Your task to perform on an android device: What's the weather today? Image 0: 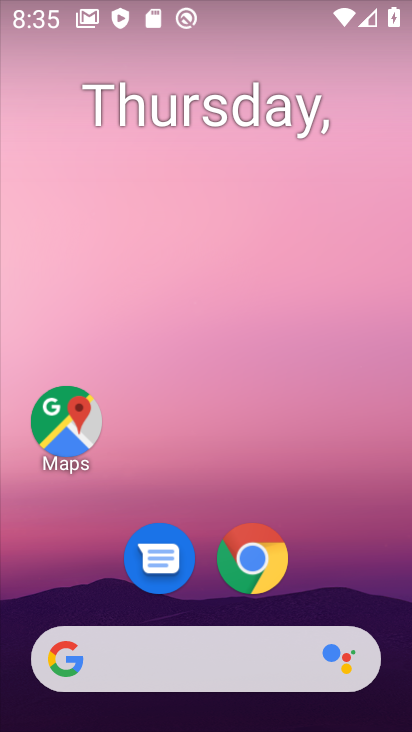
Step 0: drag from (5, 145) to (396, 187)
Your task to perform on an android device: What's the weather today? Image 1: 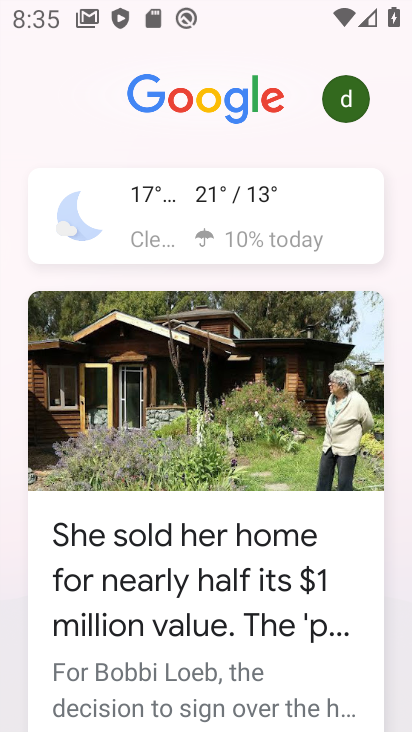
Step 1: click (266, 225)
Your task to perform on an android device: What's the weather today? Image 2: 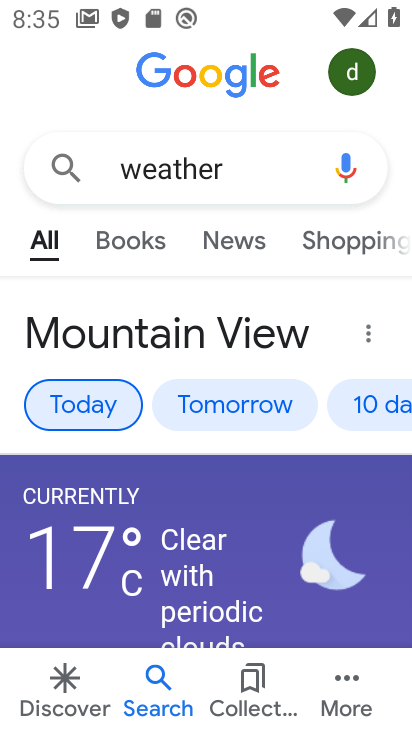
Step 2: drag from (245, 557) to (227, 188)
Your task to perform on an android device: What's the weather today? Image 3: 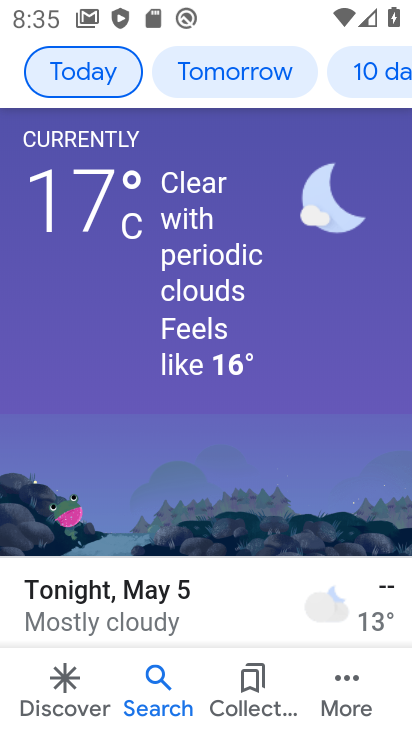
Step 3: drag from (226, 543) to (248, 184)
Your task to perform on an android device: What's the weather today? Image 4: 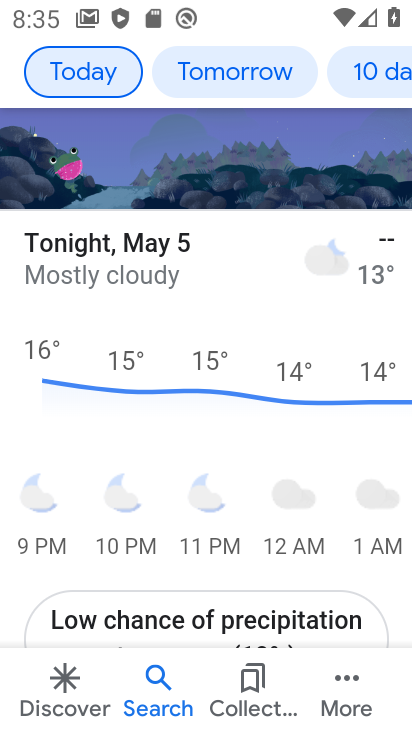
Step 4: drag from (333, 405) to (36, 368)
Your task to perform on an android device: What's the weather today? Image 5: 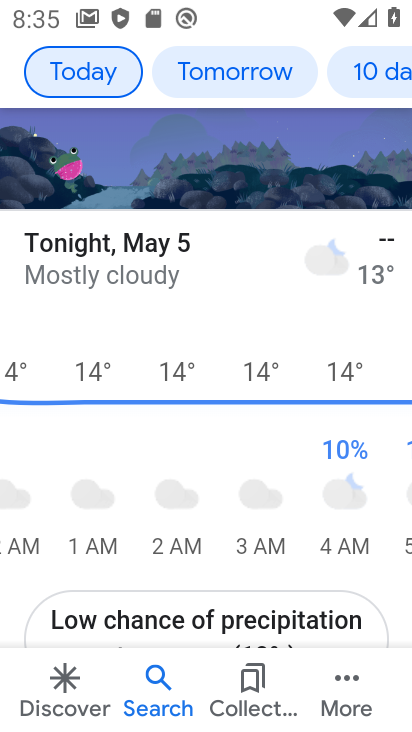
Step 5: drag from (287, 392) to (8, 362)
Your task to perform on an android device: What's the weather today? Image 6: 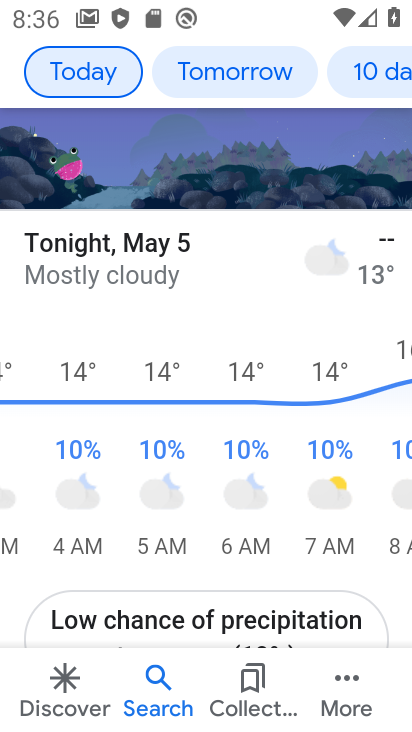
Step 6: click (14, 394)
Your task to perform on an android device: What's the weather today? Image 7: 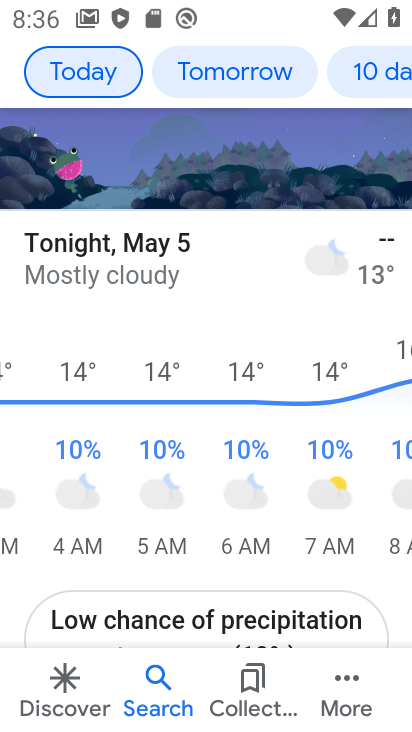
Step 7: task complete